Your task to perform on an android device: turn on airplane mode Image 0: 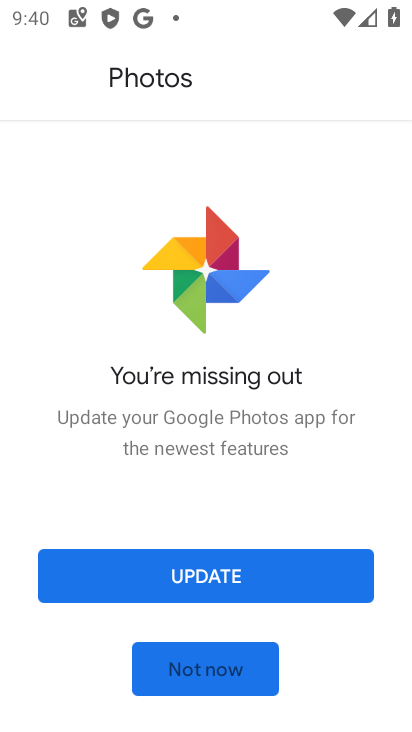
Step 0: press home button
Your task to perform on an android device: turn on airplane mode Image 1: 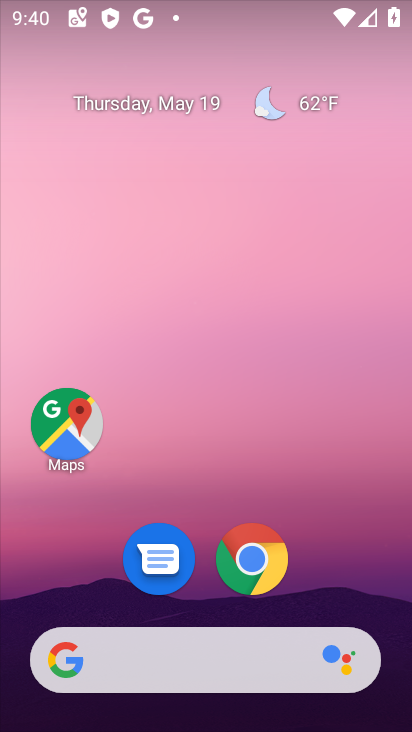
Step 1: drag from (349, 525) to (351, 128)
Your task to perform on an android device: turn on airplane mode Image 2: 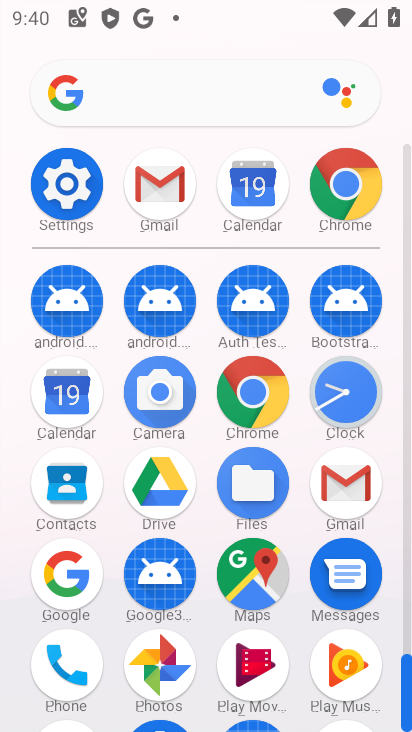
Step 2: click (50, 176)
Your task to perform on an android device: turn on airplane mode Image 3: 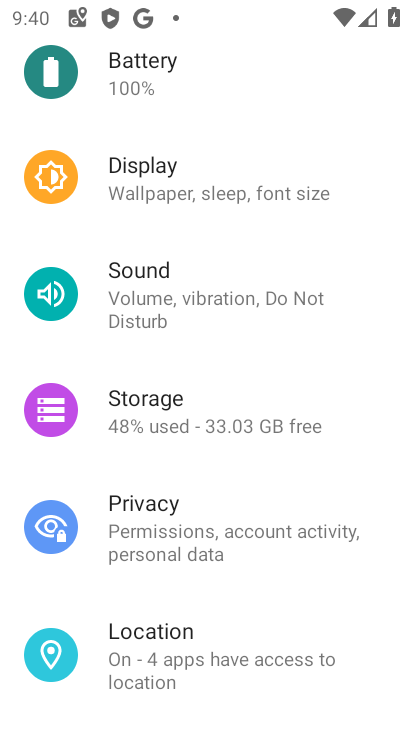
Step 3: drag from (161, 614) to (248, 615)
Your task to perform on an android device: turn on airplane mode Image 4: 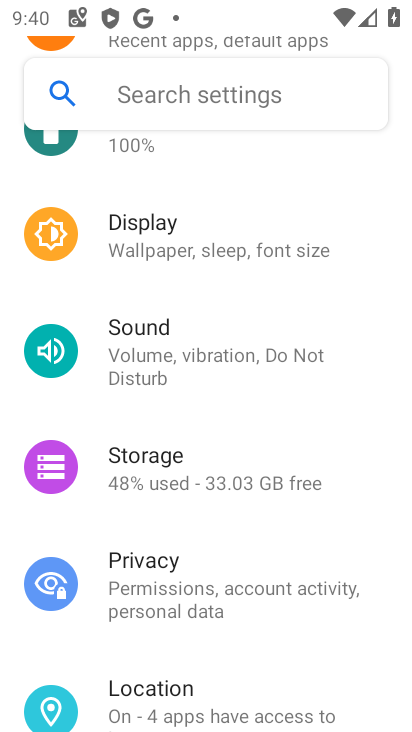
Step 4: drag from (288, 237) to (245, 649)
Your task to perform on an android device: turn on airplane mode Image 5: 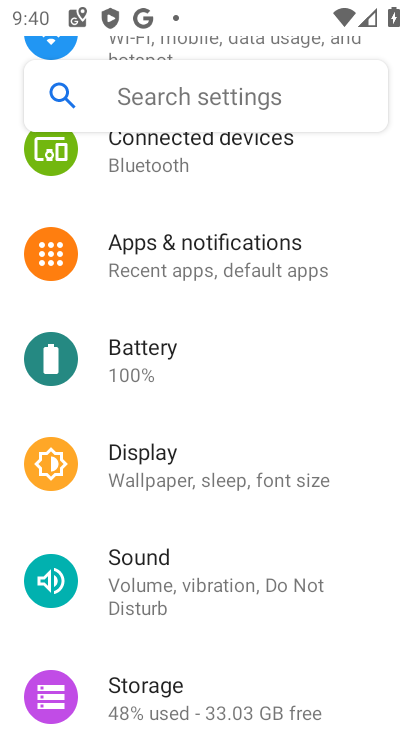
Step 5: drag from (262, 231) to (266, 654)
Your task to perform on an android device: turn on airplane mode Image 6: 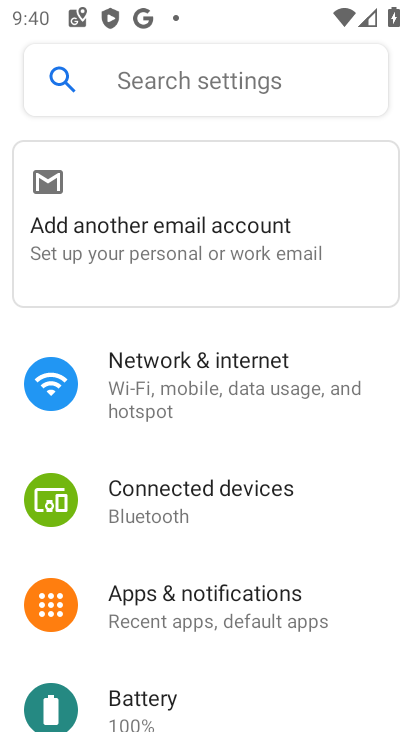
Step 6: click (236, 377)
Your task to perform on an android device: turn on airplane mode Image 7: 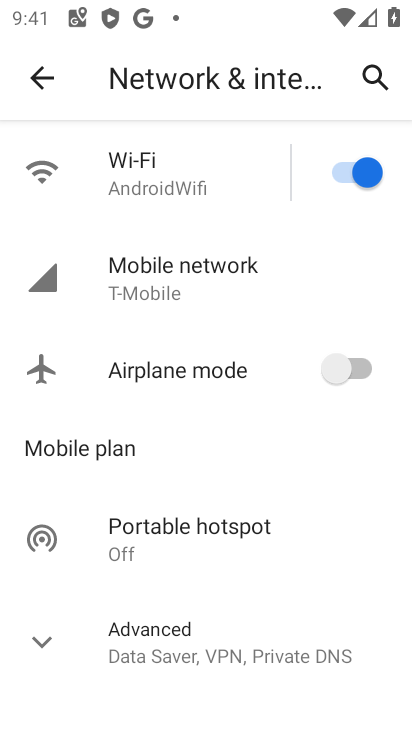
Step 7: click (333, 367)
Your task to perform on an android device: turn on airplane mode Image 8: 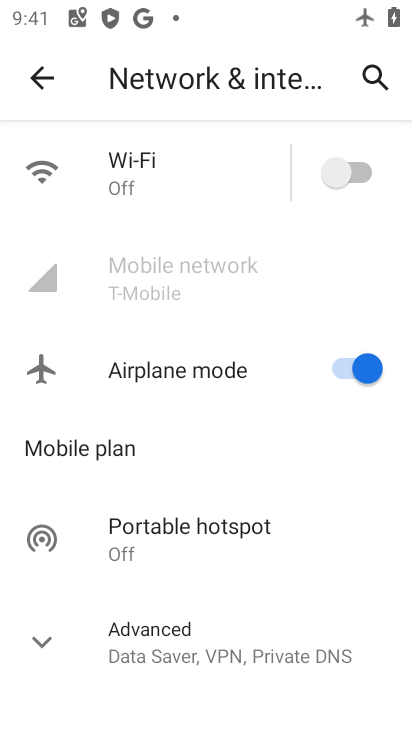
Step 8: task complete